Your task to perform on an android device: turn on improve location accuracy Image 0: 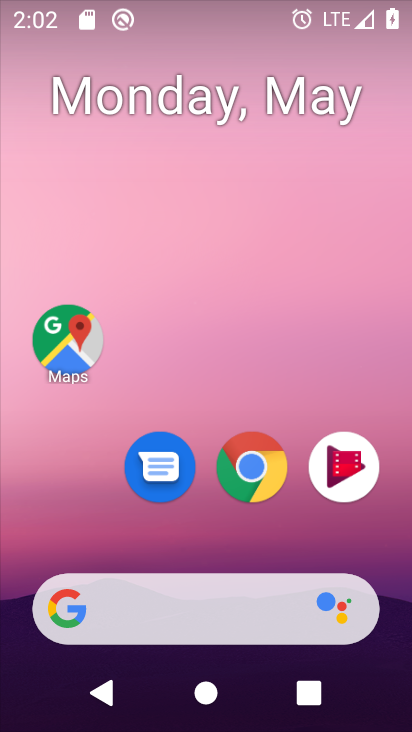
Step 0: drag from (237, 532) to (207, 218)
Your task to perform on an android device: turn on improve location accuracy Image 1: 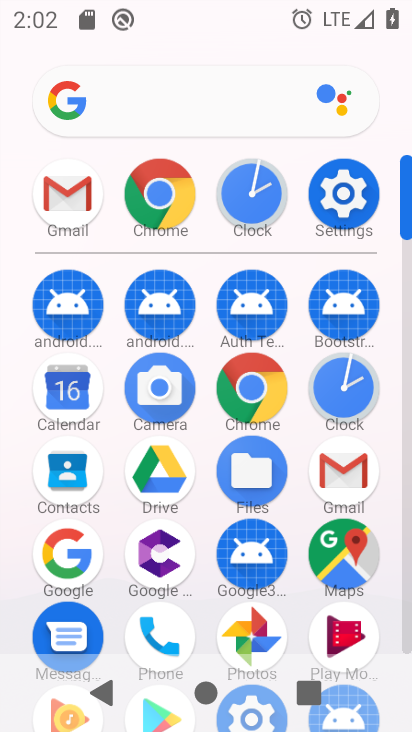
Step 1: click (357, 190)
Your task to perform on an android device: turn on improve location accuracy Image 2: 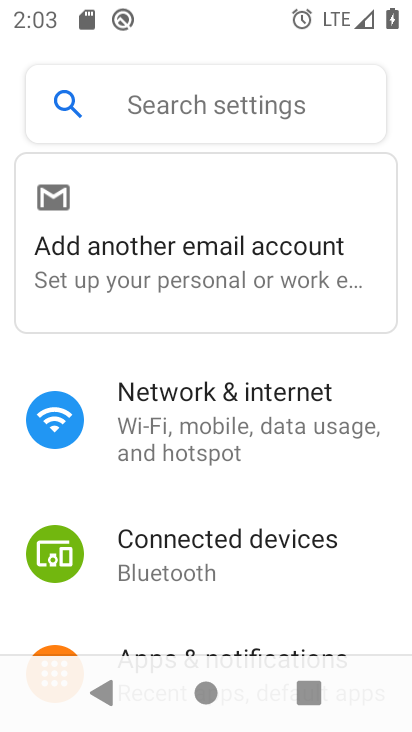
Step 2: drag from (250, 541) to (269, 280)
Your task to perform on an android device: turn on improve location accuracy Image 3: 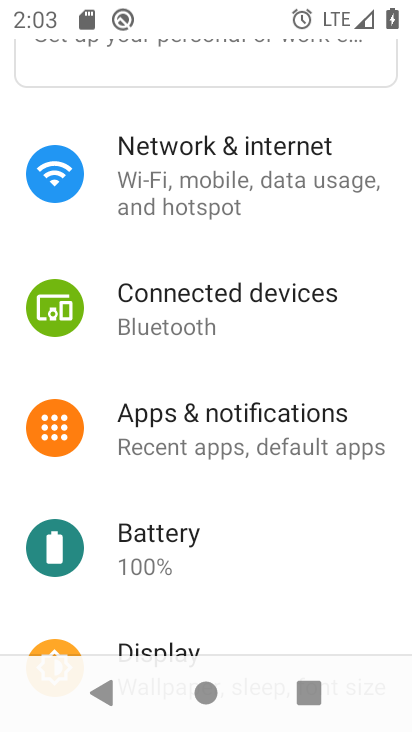
Step 3: drag from (228, 494) to (268, 163)
Your task to perform on an android device: turn on improve location accuracy Image 4: 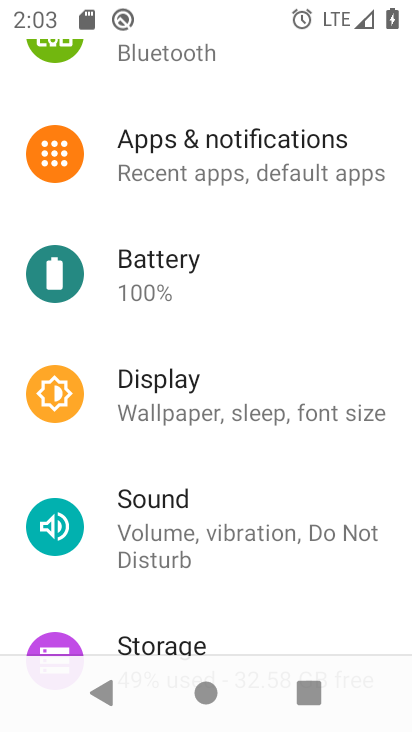
Step 4: drag from (212, 501) to (241, 158)
Your task to perform on an android device: turn on improve location accuracy Image 5: 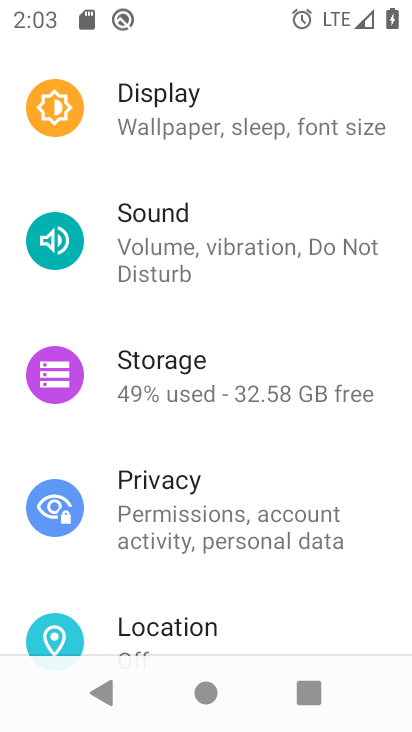
Step 5: drag from (176, 450) to (209, 179)
Your task to perform on an android device: turn on improve location accuracy Image 6: 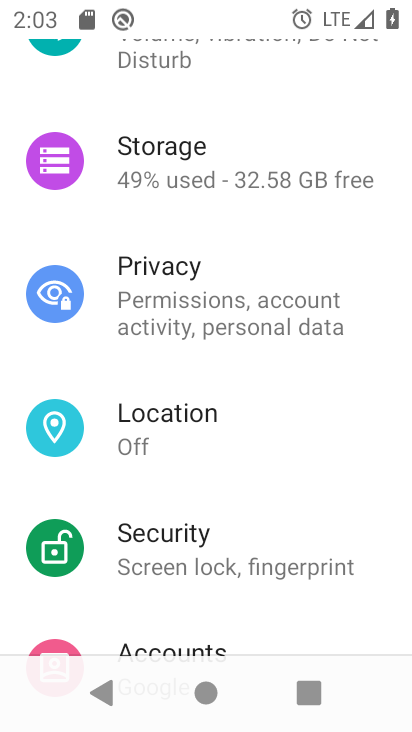
Step 6: click (164, 436)
Your task to perform on an android device: turn on improve location accuracy Image 7: 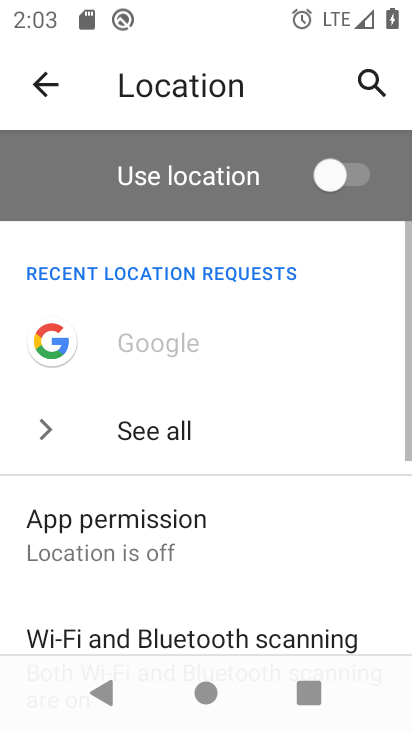
Step 7: drag from (214, 550) to (266, 182)
Your task to perform on an android device: turn on improve location accuracy Image 8: 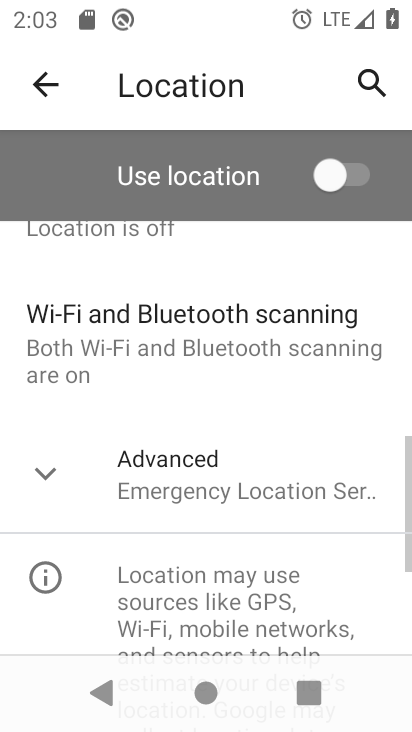
Step 8: drag from (263, 559) to (290, 290)
Your task to perform on an android device: turn on improve location accuracy Image 9: 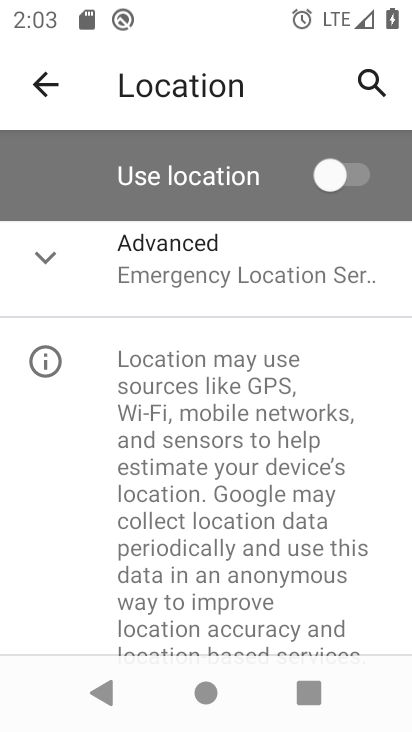
Step 9: click (176, 271)
Your task to perform on an android device: turn on improve location accuracy Image 10: 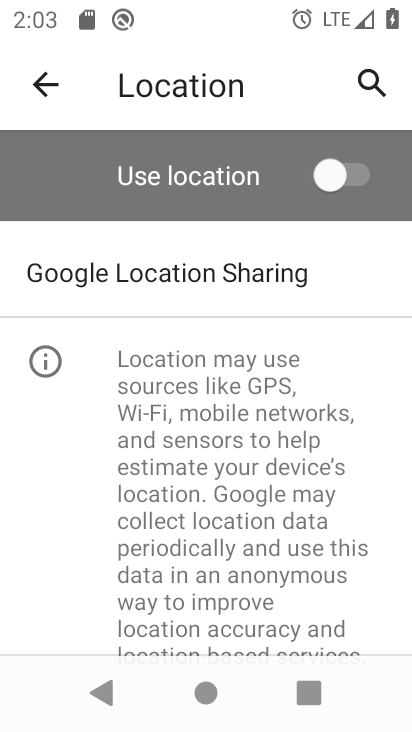
Step 10: drag from (228, 464) to (224, 596)
Your task to perform on an android device: turn on improve location accuracy Image 11: 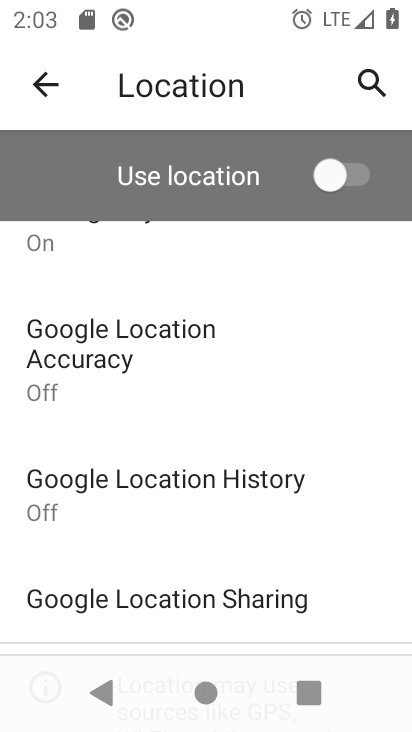
Step 11: click (205, 368)
Your task to perform on an android device: turn on improve location accuracy Image 12: 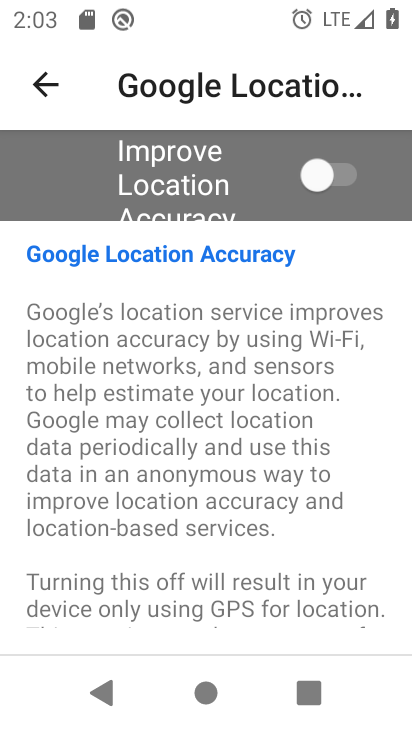
Step 12: click (327, 172)
Your task to perform on an android device: turn on improve location accuracy Image 13: 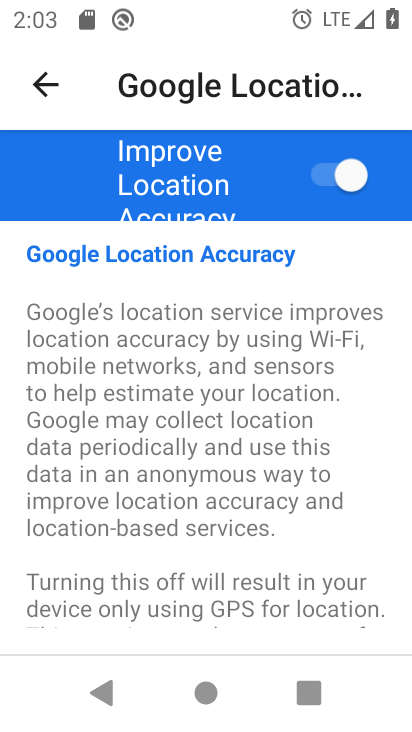
Step 13: task complete